Your task to perform on an android device: turn off improve location accuracy Image 0: 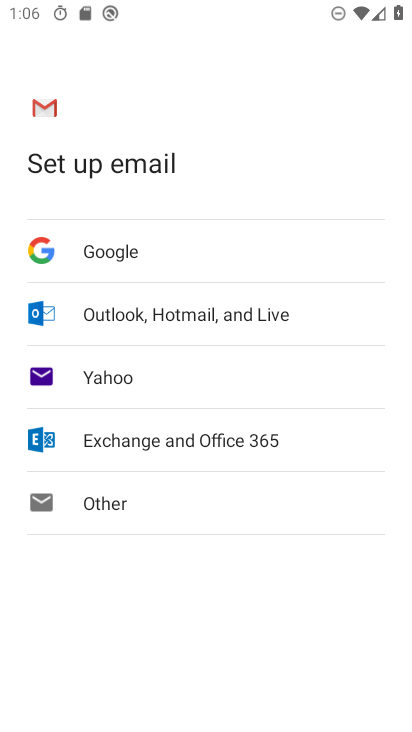
Step 0: press home button
Your task to perform on an android device: turn off improve location accuracy Image 1: 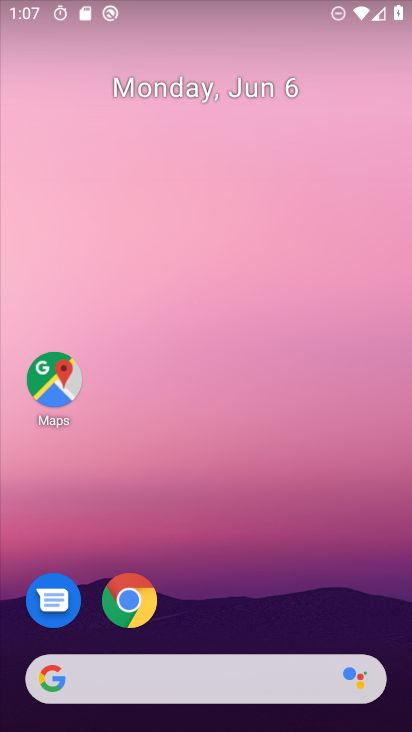
Step 1: drag from (216, 601) to (234, 224)
Your task to perform on an android device: turn off improve location accuracy Image 2: 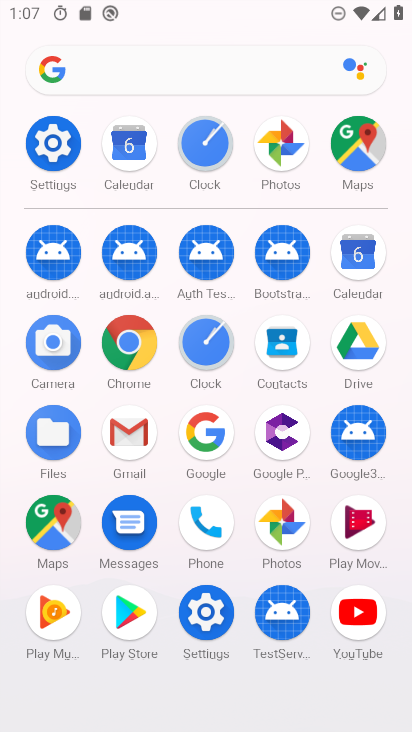
Step 2: click (61, 144)
Your task to perform on an android device: turn off improve location accuracy Image 3: 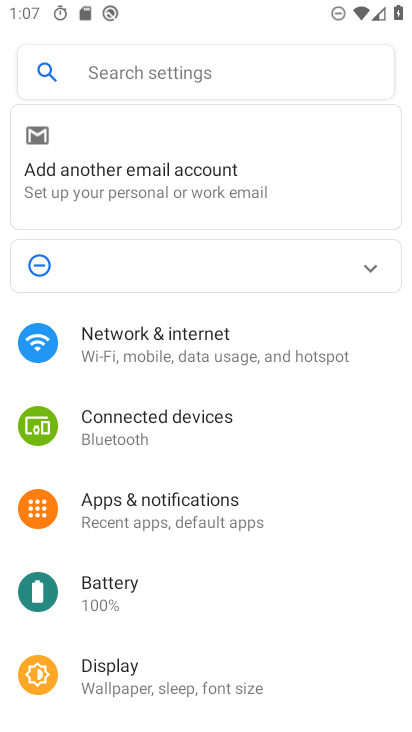
Step 3: drag from (236, 599) to (236, 302)
Your task to perform on an android device: turn off improve location accuracy Image 4: 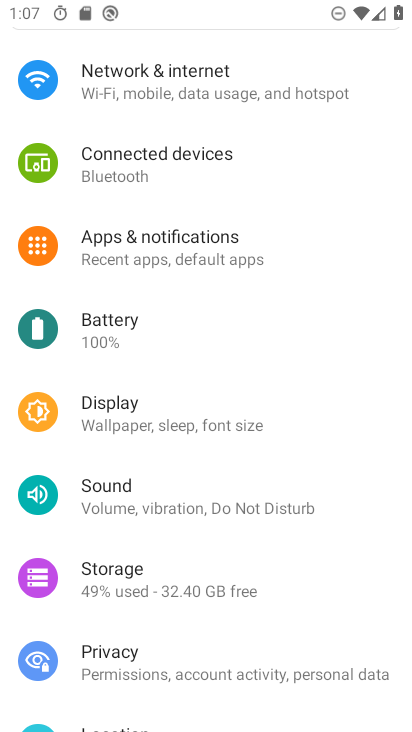
Step 4: drag from (205, 641) to (240, 382)
Your task to perform on an android device: turn off improve location accuracy Image 5: 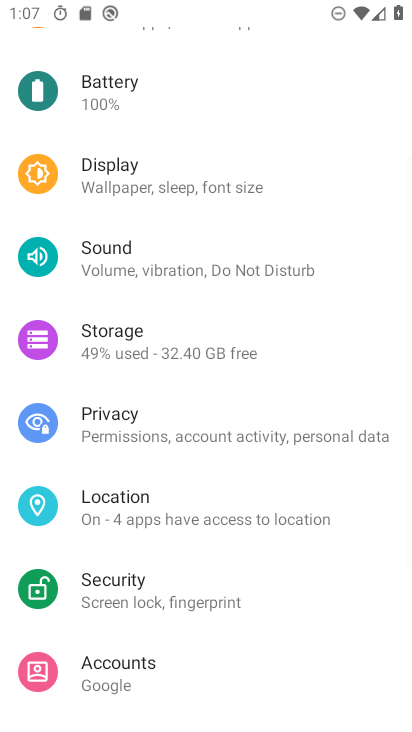
Step 5: click (197, 505)
Your task to perform on an android device: turn off improve location accuracy Image 6: 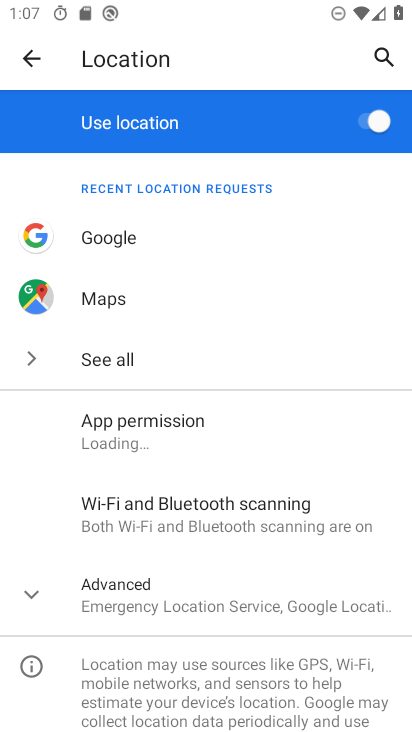
Step 6: click (221, 603)
Your task to perform on an android device: turn off improve location accuracy Image 7: 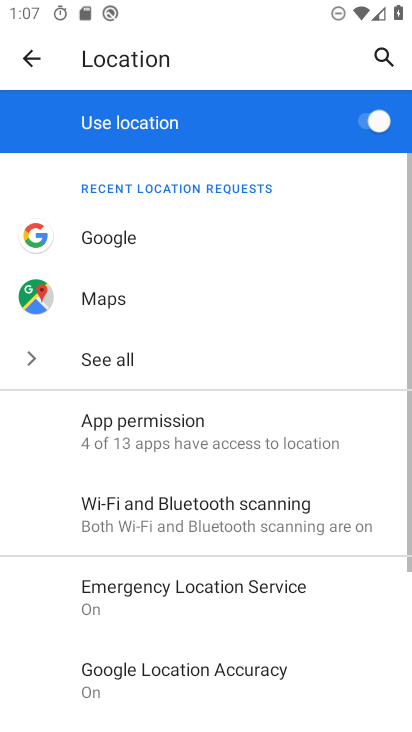
Step 7: drag from (233, 626) to (259, 385)
Your task to perform on an android device: turn off improve location accuracy Image 8: 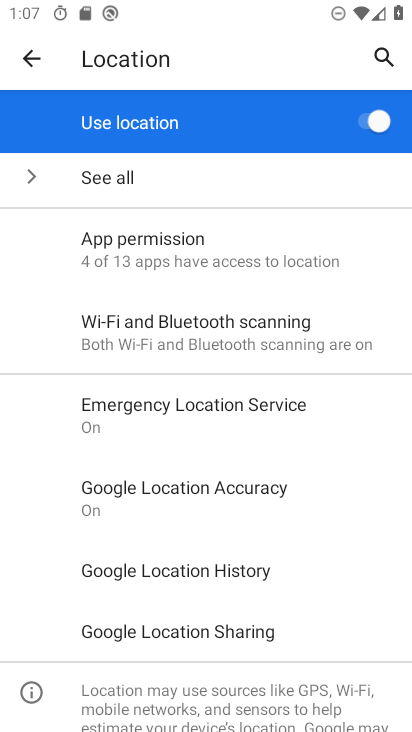
Step 8: click (260, 518)
Your task to perform on an android device: turn off improve location accuracy Image 9: 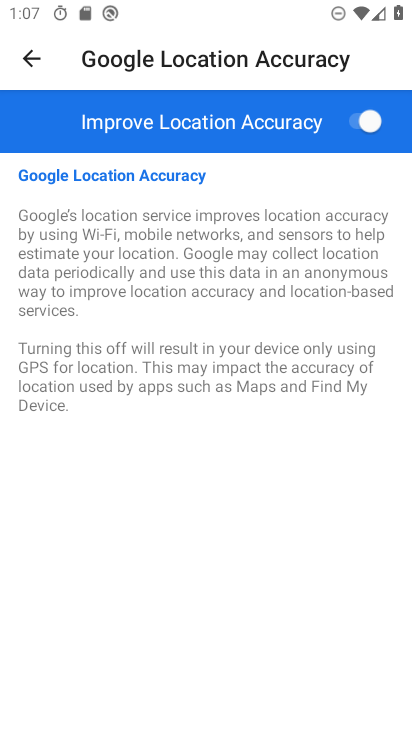
Step 9: click (353, 119)
Your task to perform on an android device: turn off improve location accuracy Image 10: 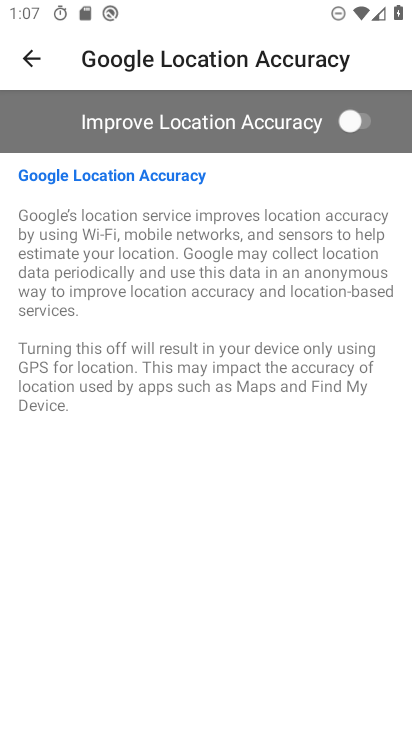
Step 10: task complete